Your task to perform on an android device: Open sound settings Image 0: 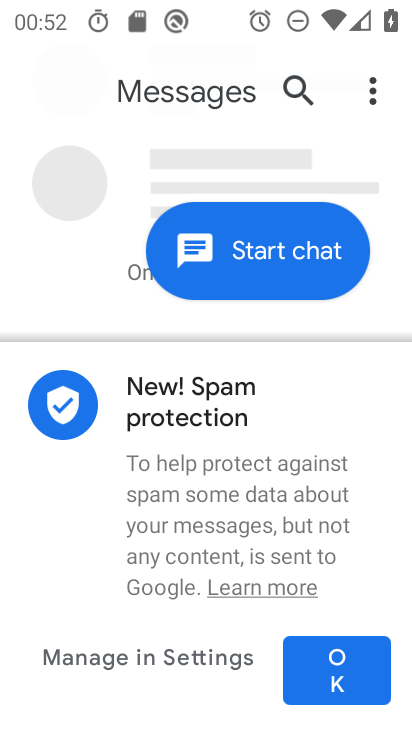
Step 0: press home button
Your task to perform on an android device: Open sound settings Image 1: 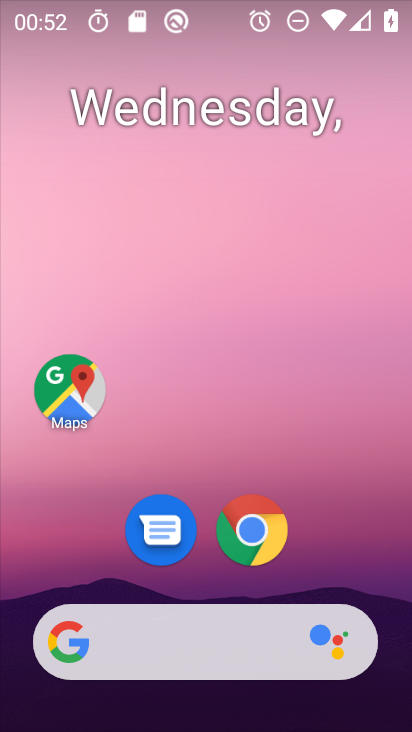
Step 1: drag from (315, 566) to (284, 23)
Your task to perform on an android device: Open sound settings Image 2: 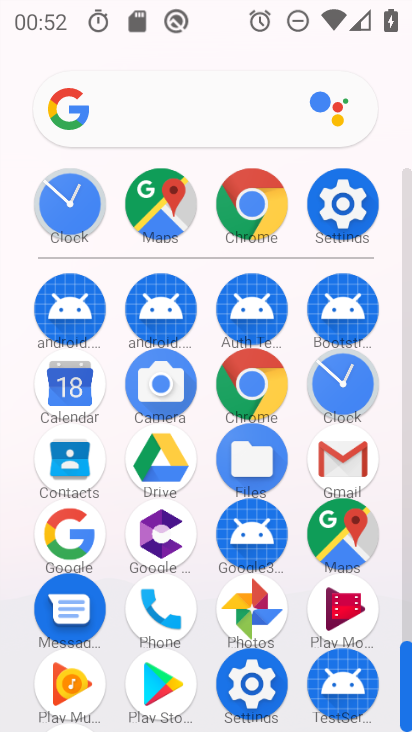
Step 2: click (337, 205)
Your task to perform on an android device: Open sound settings Image 3: 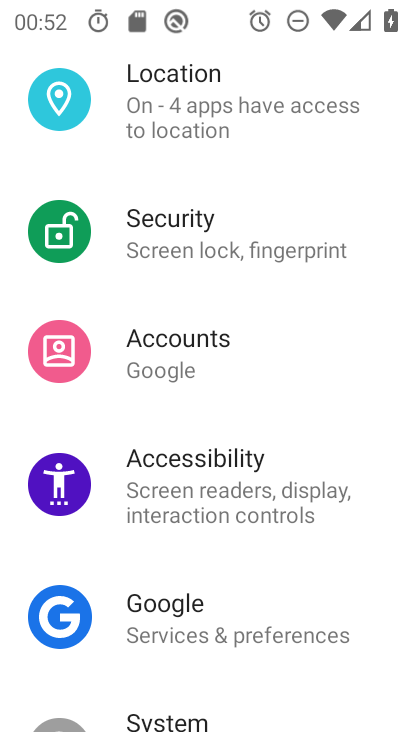
Step 3: drag from (290, 163) to (383, 613)
Your task to perform on an android device: Open sound settings Image 4: 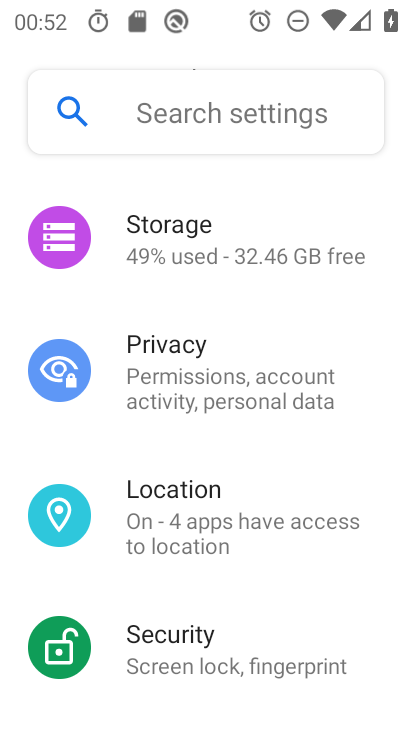
Step 4: drag from (222, 338) to (276, 661)
Your task to perform on an android device: Open sound settings Image 5: 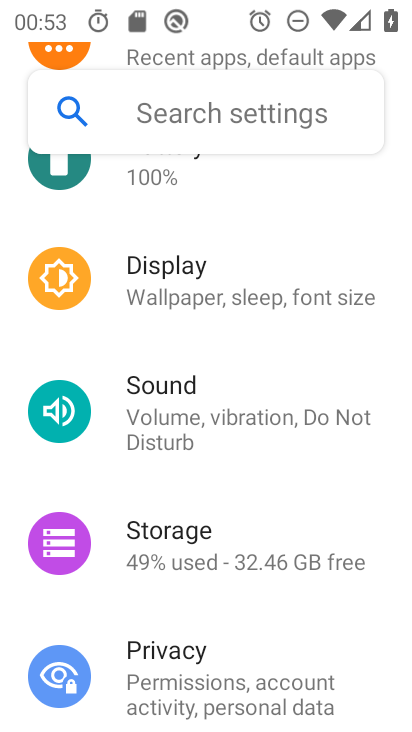
Step 5: click (206, 340)
Your task to perform on an android device: Open sound settings Image 6: 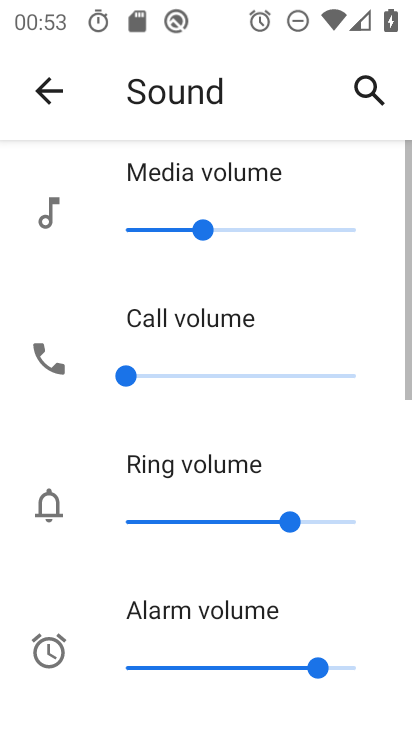
Step 6: click (183, 407)
Your task to perform on an android device: Open sound settings Image 7: 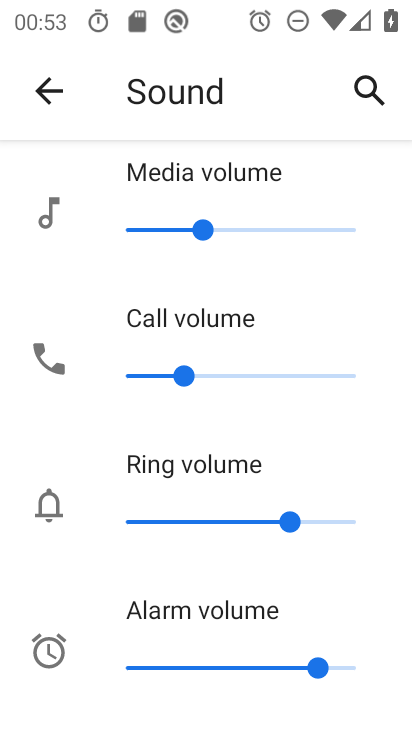
Step 7: task complete